Your task to perform on an android device: View the shopping cart on costco.com. Add "bose quietcomfort 35" to the cart on costco.com Image 0: 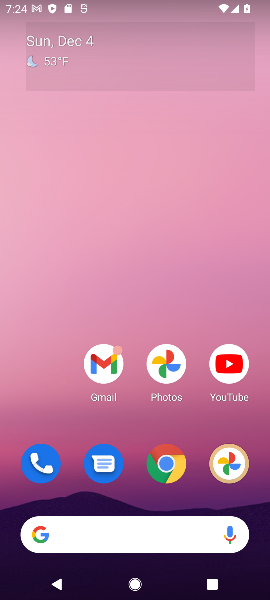
Step 0: click (139, 539)
Your task to perform on an android device: View the shopping cart on costco.com. Add "bose quietcomfort 35" to the cart on costco.com Image 1: 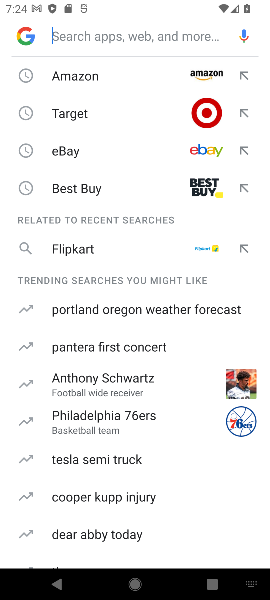
Step 1: type "costco"
Your task to perform on an android device: View the shopping cart on costco.com. Add "bose quietcomfort 35" to the cart on costco.com Image 2: 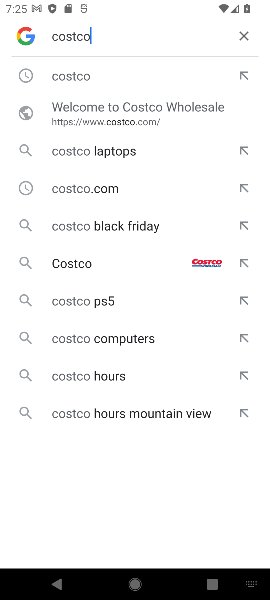
Step 2: click (56, 73)
Your task to perform on an android device: View the shopping cart on costco.com. Add "bose quietcomfort 35" to the cart on costco.com Image 3: 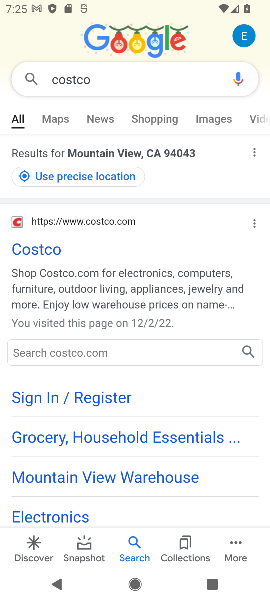
Step 3: click (10, 262)
Your task to perform on an android device: View the shopping cart on costco.com. Add "bose quietcomfort 35" to the cart on costco.com Image 4: 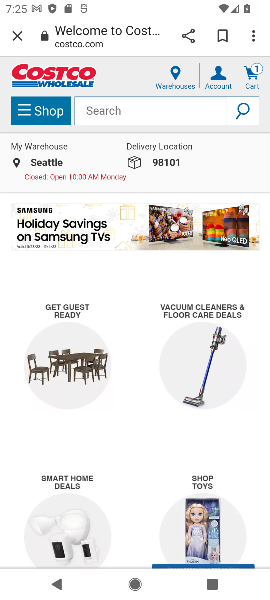
Step 4: task complete